Your task to perform on an android device: Search for "acer nitro" on walmart.com, select the first entry, and add it to the cart. Image 0: 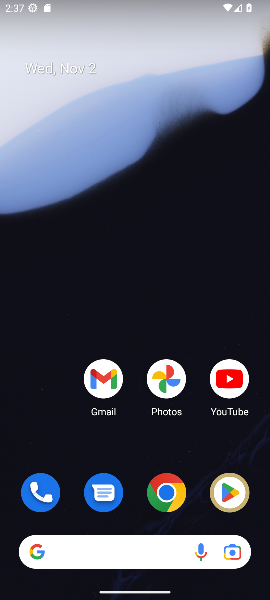
Step 0: click (165, 491)
Your task to perform on an android device: Search for "acer nitro" on walmart.com, select the first entry, and add it to the cart. Image 1: 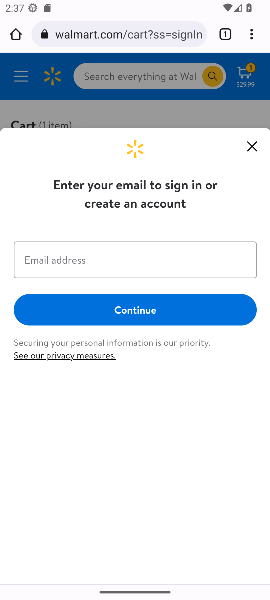
Step 1: click (117, 21)
Your task to perform on an android device: Search for "acer nitro" on walmart.com, select the first entry, and add it to the cart. Image 2: 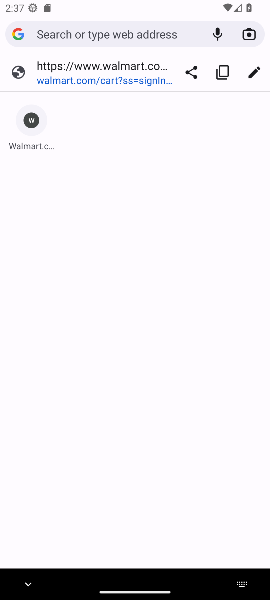
Step 2: type "walmart.com"
Your task to perform on an android device: Search for "acer nitro" on walmart.com, select the first entry, and add it to the cart. Image 3: 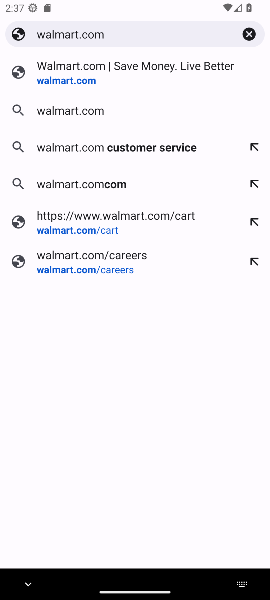
Step 3: click (64, 65)
Your task to perform on an android device: Search for "acer nitro" on walmart.com, select the first entry, and add it to the cart. Image 4: 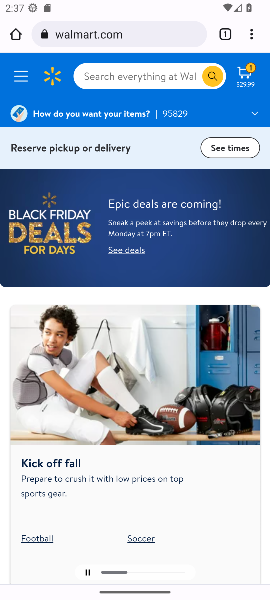
Step 4: click (122, 76)
Your task to perform on an android device: Search for "acer nitro" on walmart.com, select the first entry, and add it to the cart. Image 5: 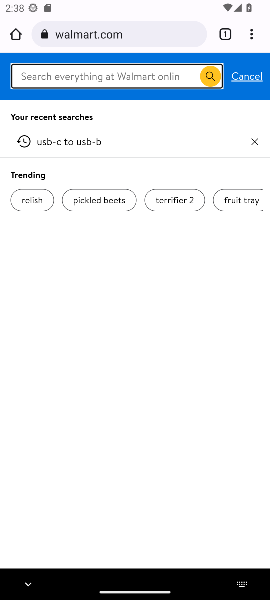
Step 5: type "acer nitro"
Your task to perform on an android device: Search for "acer nitro" on walmart.com, select the first entry, and add it to the cart. Image 6: 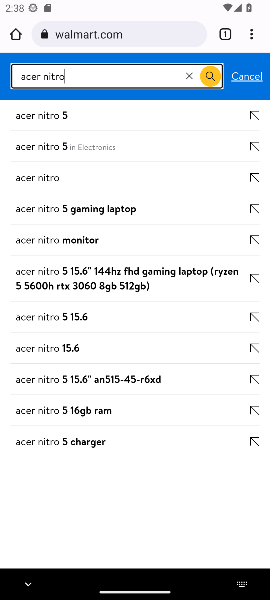
Step 6: click (38, 110)
Your task to perform on an android device: Search for "acer nitro" on walmart.com, select the first entry, and add it to the cart. Image 7: 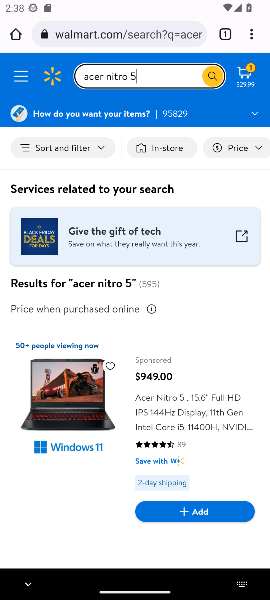
Step 7: drag from (249, 447) to (247, 350)
Your task to perform on an android device: Search for "acer nitro" on walmart.com, select the first entry, and add it to the cart. Image 8: 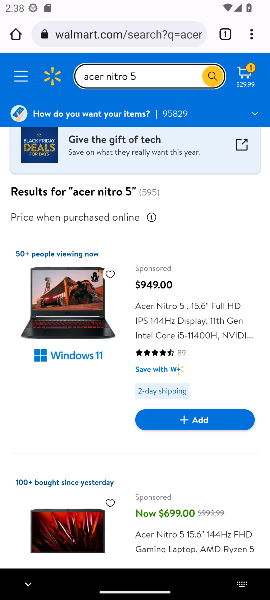
Step 8: click (182, 417)
Your task to perform on an android device: Search for "acer nitro" on walmart.com, select the first entry, and add it to the cart. Image 9: 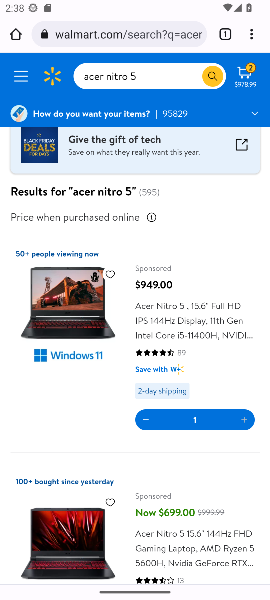
Step 9: click (245, 74)
Your task to perform on an android device: Search for "acer nitro" on walmart.com, select the first entry, and add it to the cart. Image 10: 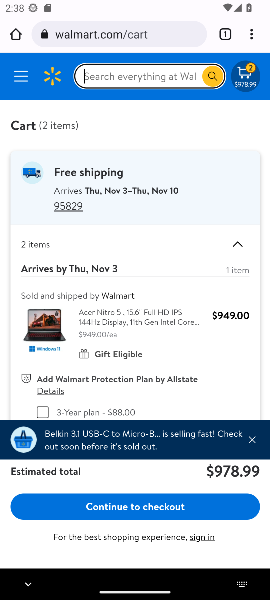
Step 10: click (146, 509)
Your task to perform on an android device: Search for "acer nitro" on walmart.com, select the first entry, and add it to the cart. Image 11: 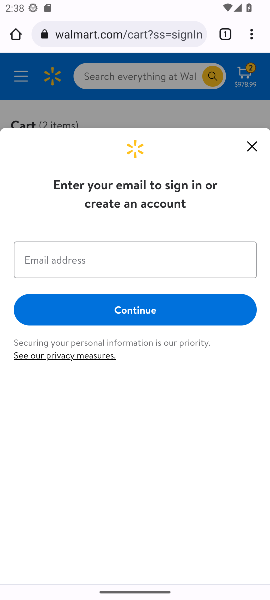
Step 11: task complete